Your task to perform on an android device: install app "Google Sheets" Image 0: 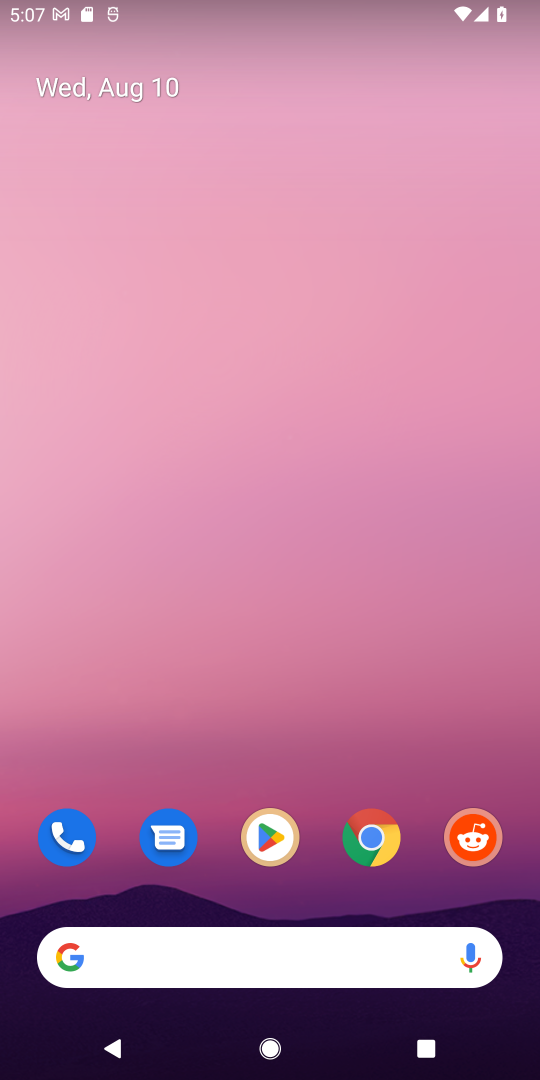
Step 0: click (267, 836)
Your task to perform on an android device: install app "Google Sheets" Image 1: 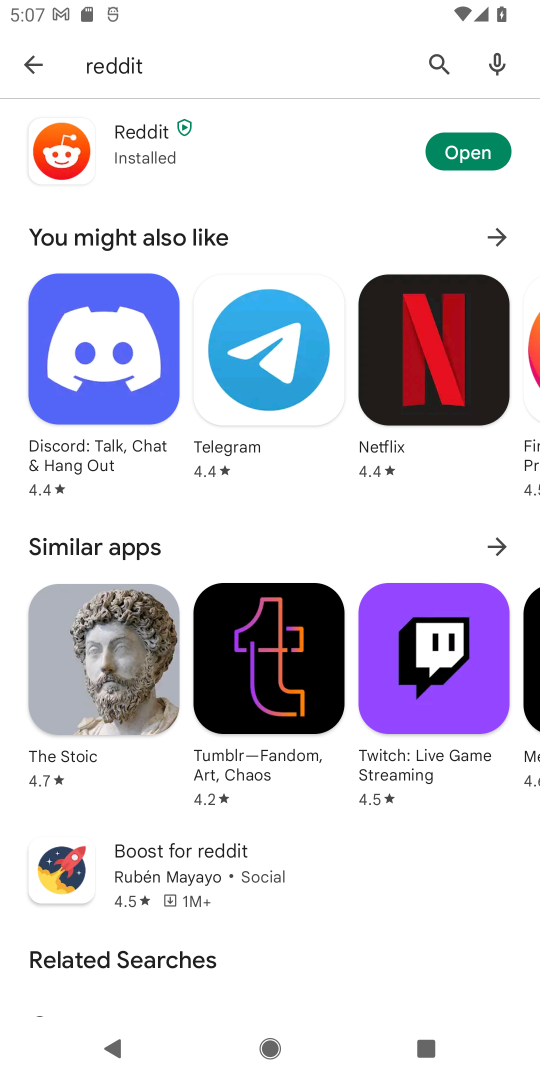
Step 1: click (432, 63)
Your task to perform on an android device: install app "Google Sheets" Image 2: 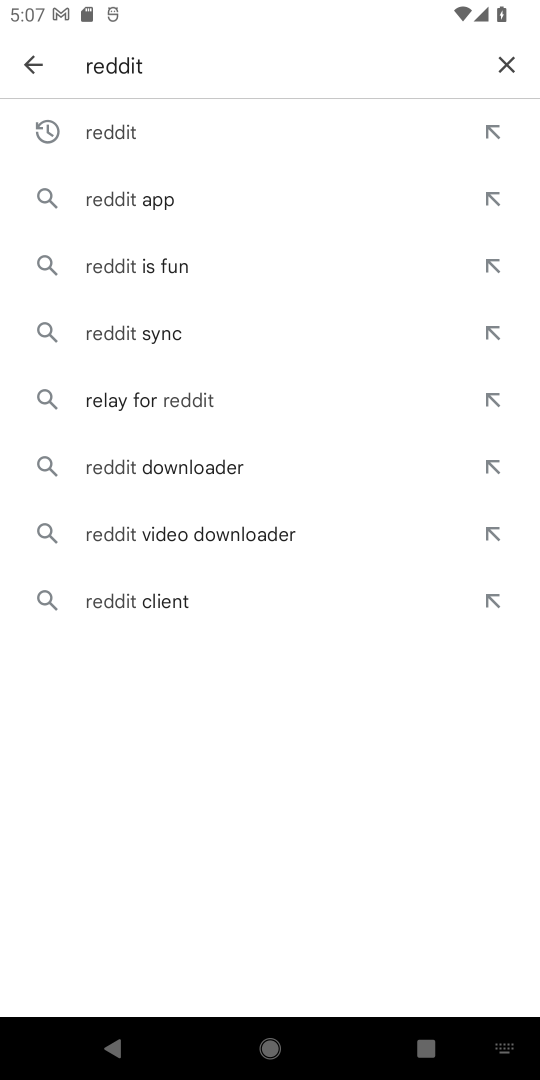
Step 2: click (498, 58)
Your task to perform on an android device: install app "Google Sheets" Image 3: 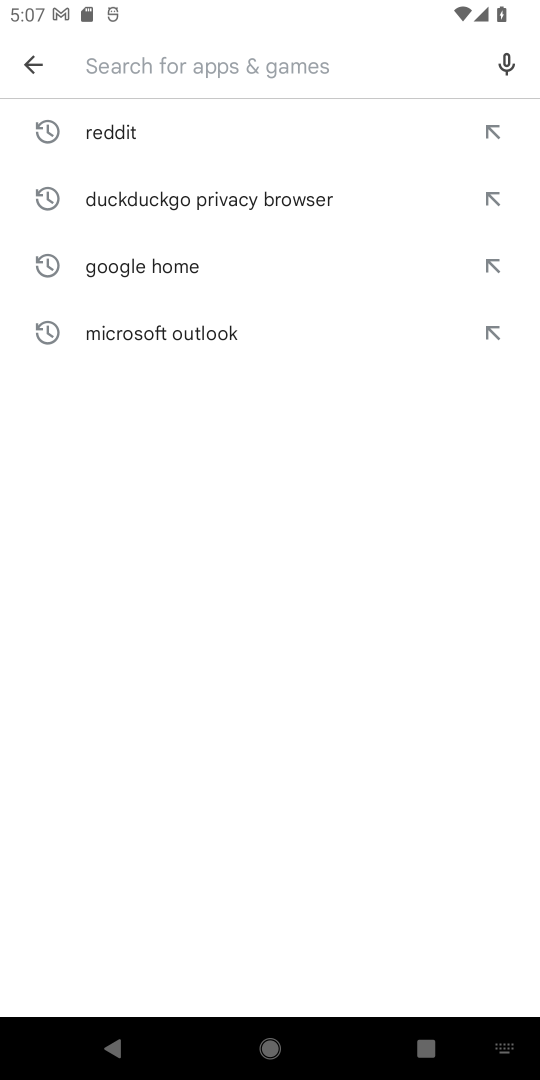
Step 3: type "Google Sheets"
Your task to perform on an android device: install app "Google Sheets" Image 4: 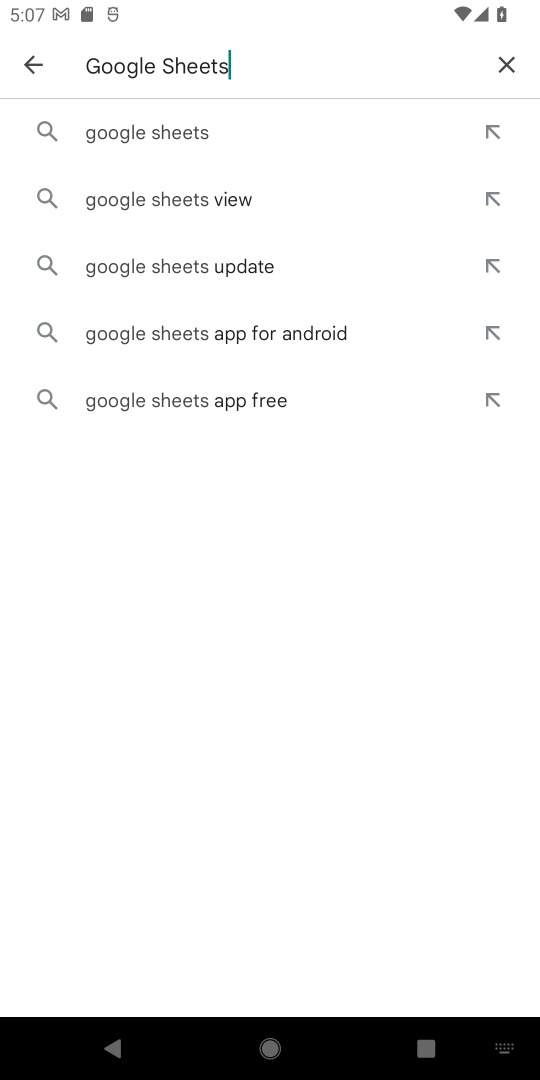
Step 4: click (175, 133)
Your task to perform on an android device: install app "Google Sheets" Image 5: 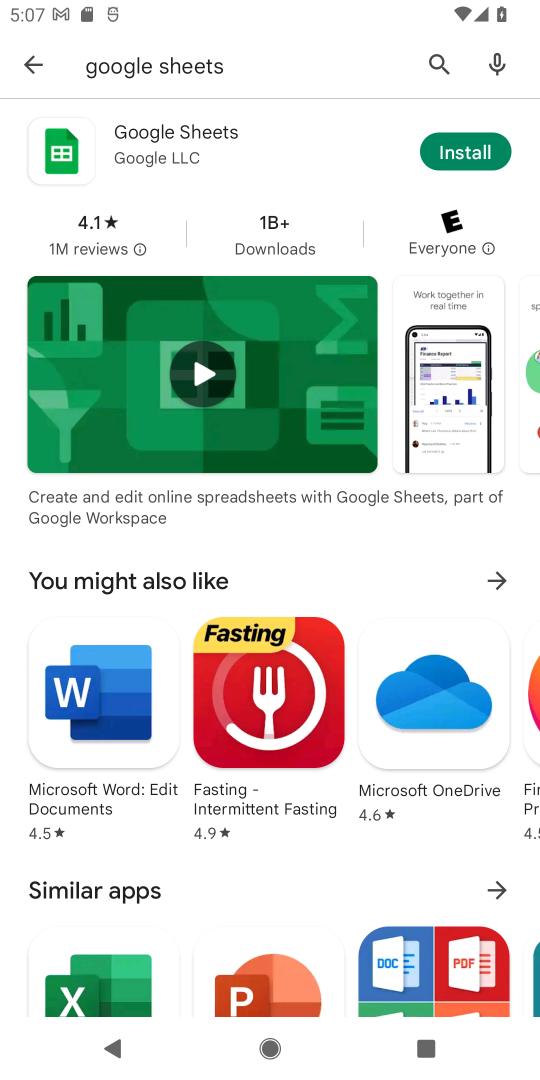
Step 5: click (456, 148)
Your task to perform on an android device: install app "Google Sheets" Image 6: 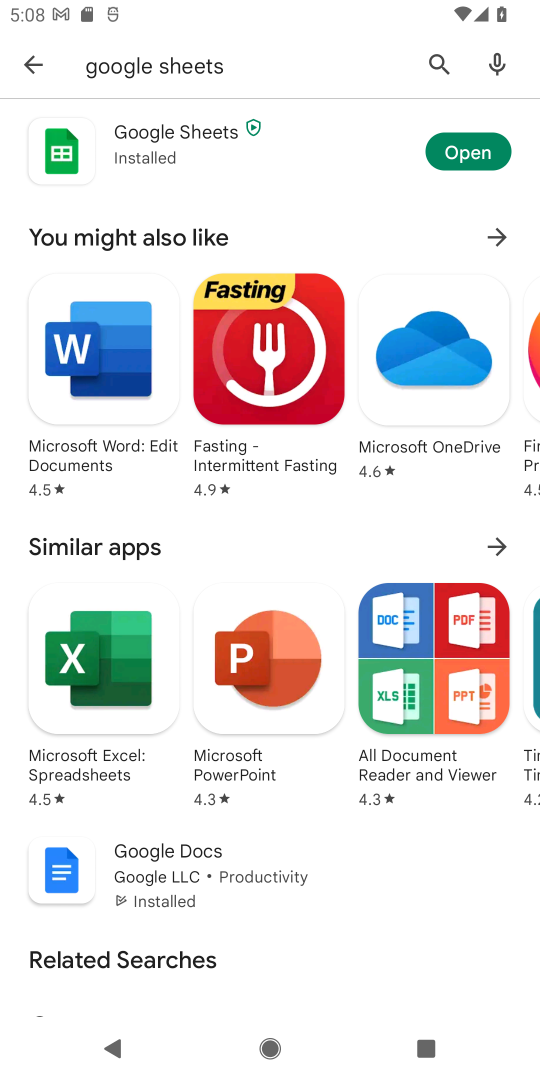
Step 6: task complete